Your task to perform on an android device: open chrome and create a bookmark for the current page Image 0: 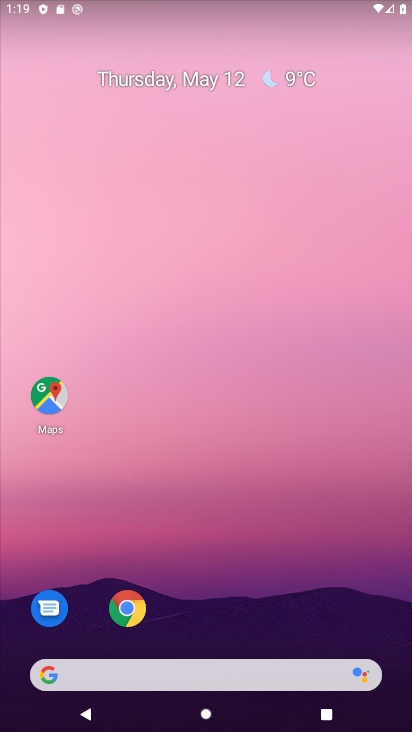
Step 0: click (139, 622)
Your task to perform on an android device: open chrome and create a bookmark for the current page Image 1: 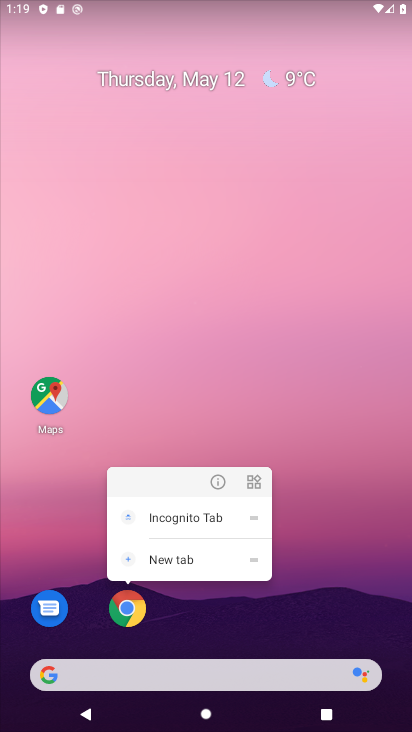
Step 1: click (130, 616)
Your task to perform on an android device: open chrome and create a bookmark for the current page Image 2: 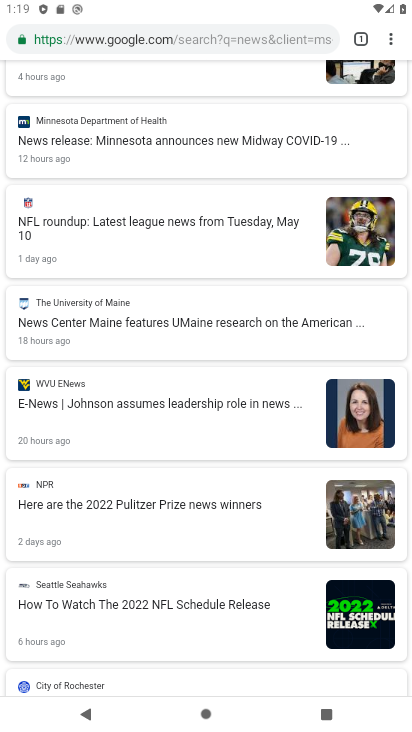
Step 2: click (393, 39)
Your task to perform on an android device: open chrome and create a bookmark for the current page Image 3: 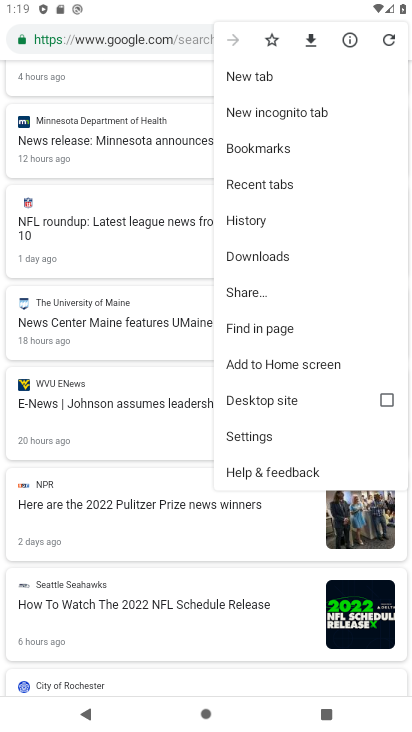
Step 3: click (273, 41)
Your task to perform on an android device: open chrome and create a bookmark for the current page Image 4: 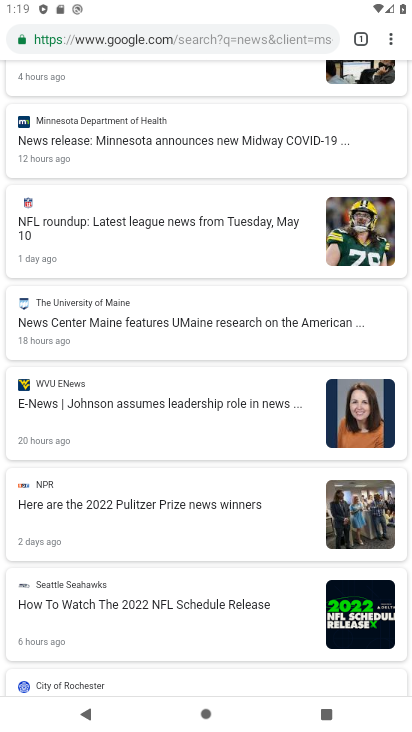
Step 4: task complete